Your task to perform on an android device: Open Google Maps Image 0: 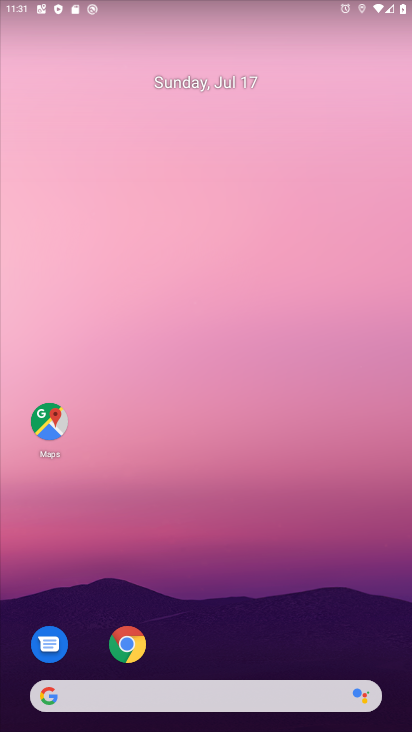
Step 0: drag from (300, 553) to (229, 76)
Your task to perform on an android device: Open Google Maps Image 1: 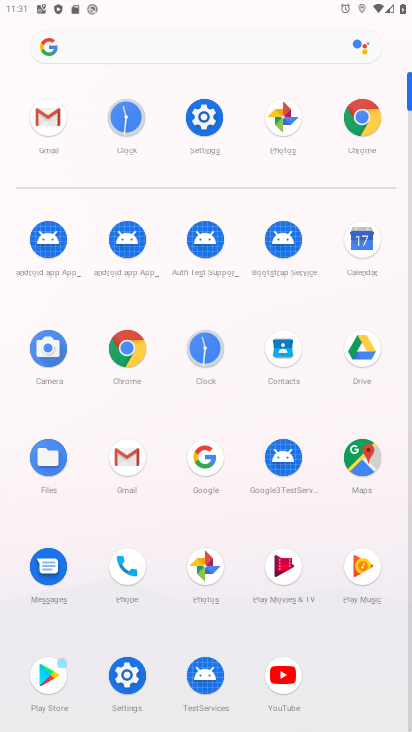
Step 1: click (357, 452)
Your task to perform on an android device: Open Google Maps Image 2: 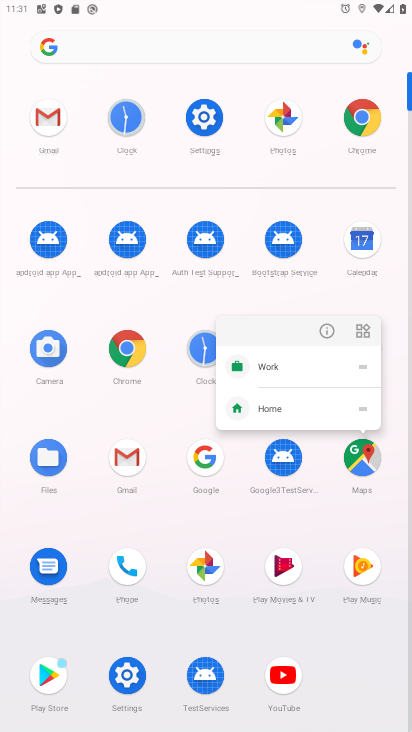
Step 2: click (360, 455)
Your task to perform on an android device: Open Google Maps Image 3: 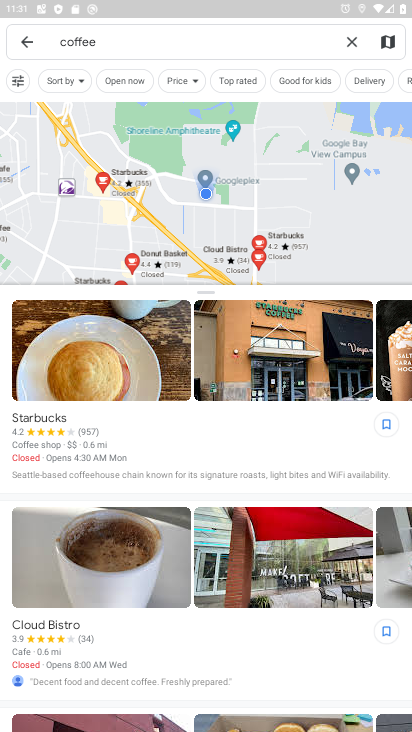
Step 3: task complete